Your task to perform on an android device: open wifi settings Image 0: 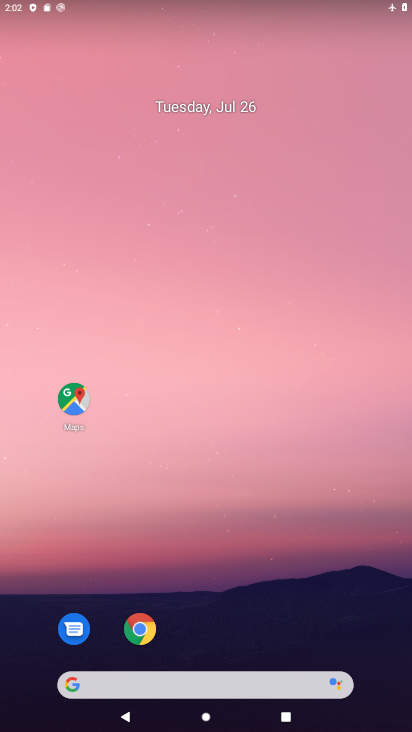
Step 0: drag from (176, 678) to (329, 47)
Your task to perform on an android device: open wifi settings Image 1: 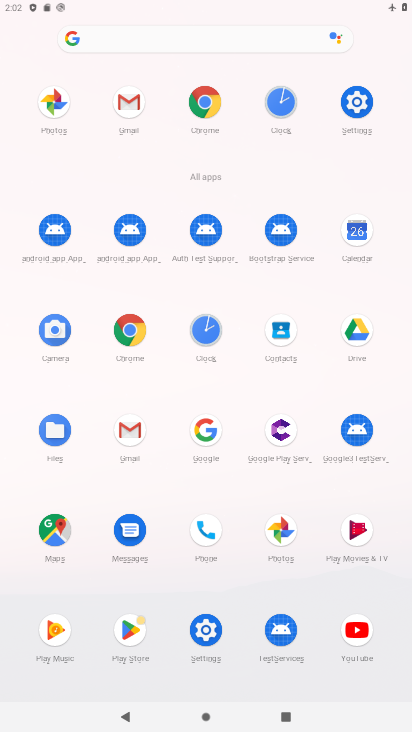
Step 1: click (361, 106)
Your task to perform on an android device: open wifi settings Image 2: 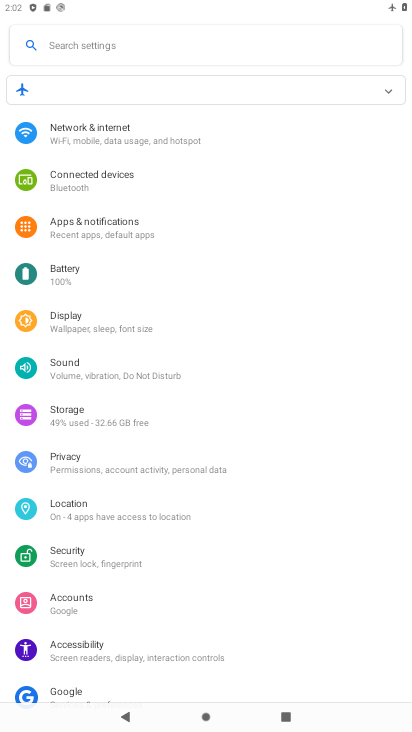
Step 2: click (122, 141)
Your task to perform on an android device: open wifi settings Image 3: 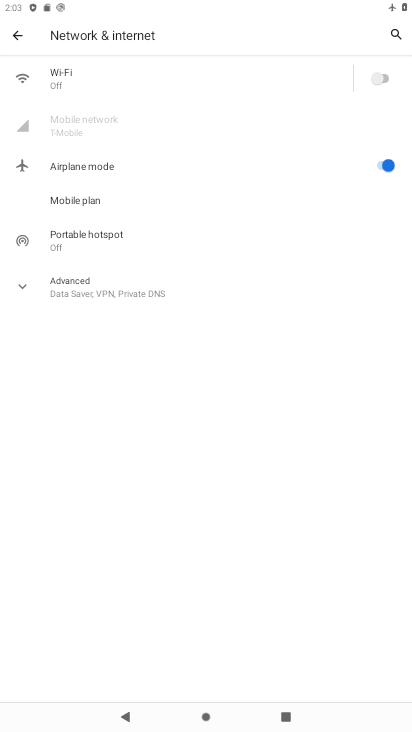
Step 3: click (72, 79)
Your task to perform on an android device: open wifi settings Image 4: 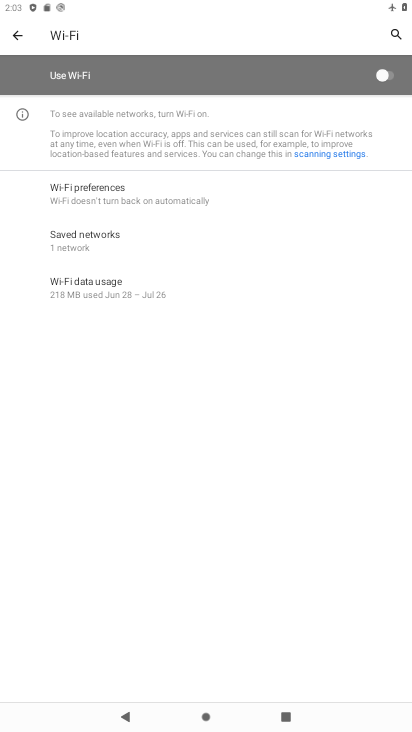
Step 4: click (386, 74)
Your task to perform on an android device: open wifi settings Image 5: 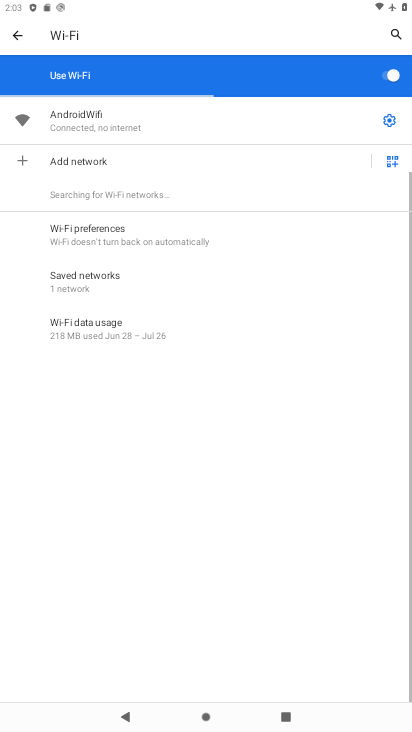
Step 5: click (384, 119)
Your task to perform on an android device: open wifi settings Image 6: 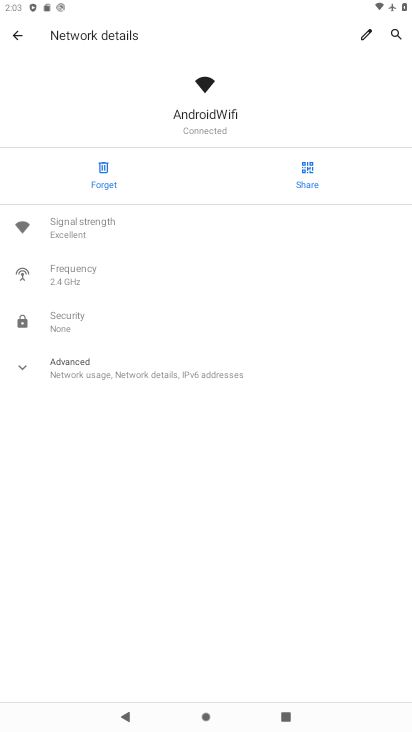
Step 6: click (78, 357)
Your task to perform on an android device: open wifi settings Image 7: 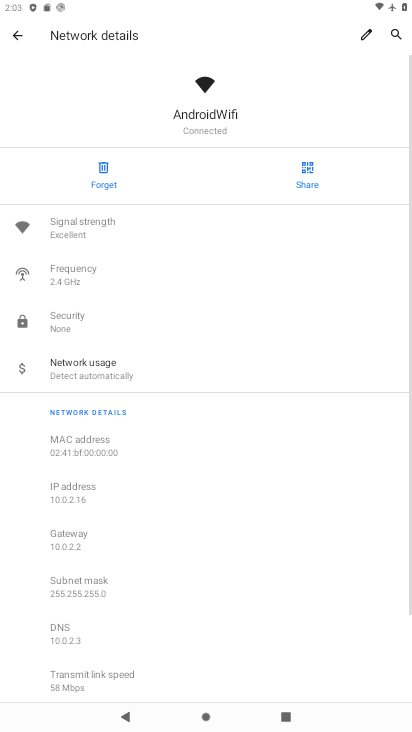
Step 7: task complete